Your task to perform on an android device: Check the weather Image 0: 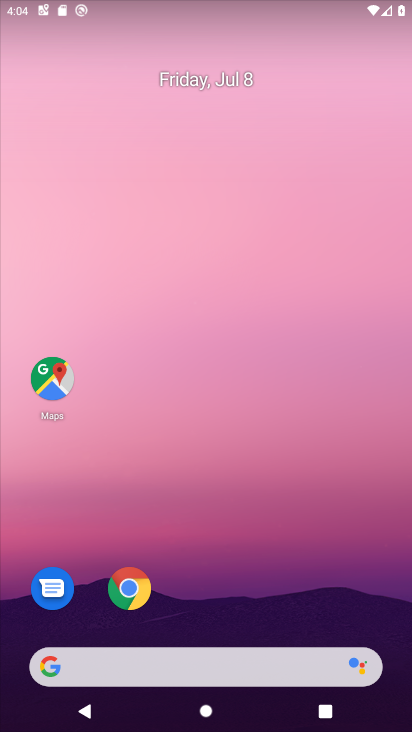
Step 0: click (276, 669)
Your task to perform on an android device: Check the weather Image 1: 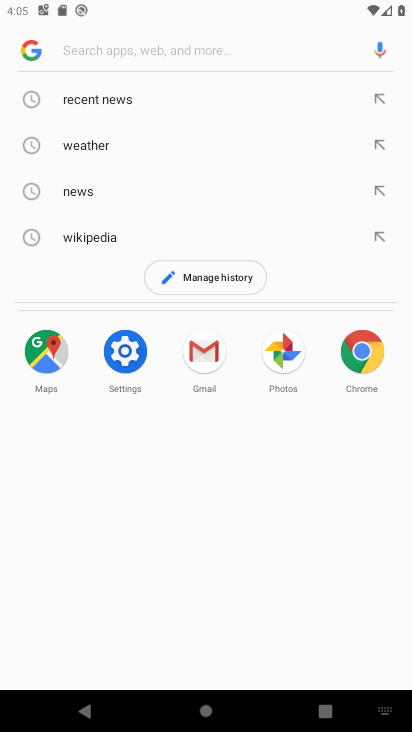
Step 1: type "weather"
Your task to perform on an android device: Check the weather Image 2: 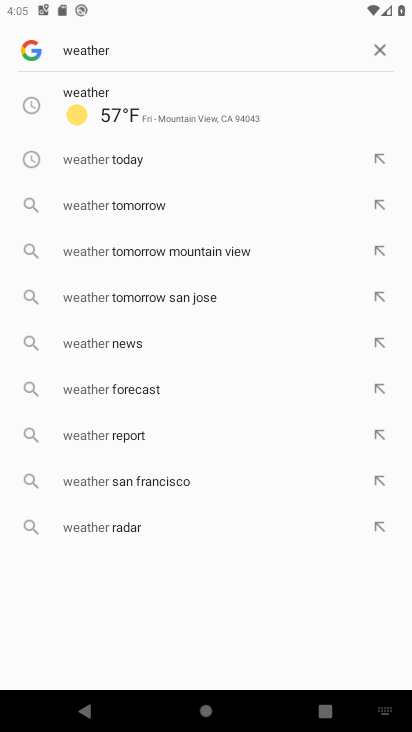
Step 2: click (111, 93)
Your task to perform on an android device: Check the weather Image 3: 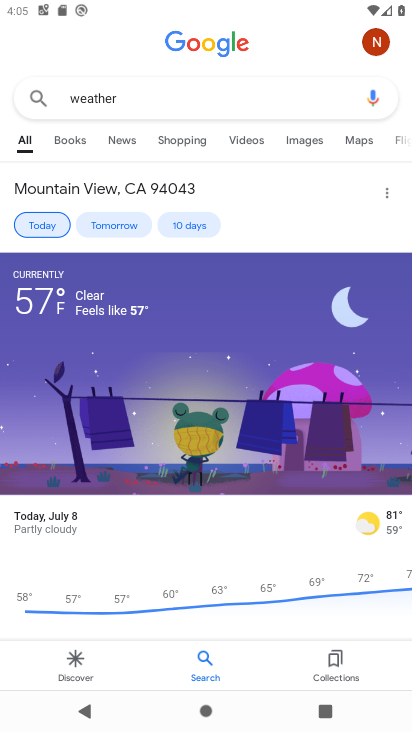
Step 3: task complete